Your task to perform on an android device: Go to Amazon Image 0: 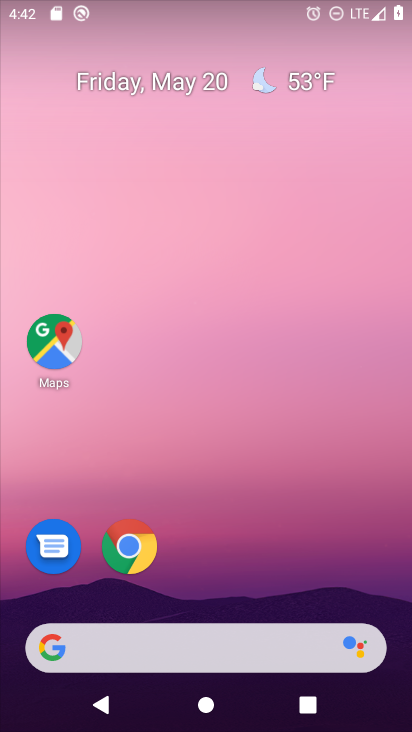
Step 0: click (126, 549)
Your task to perform on an android device: Go to Amazon Image 1: 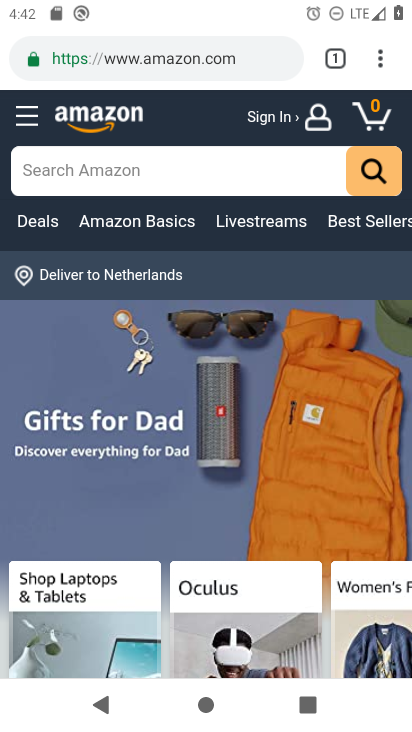
Step 1: task complete